Your task to perform on an android device: turn on location history Image 0: 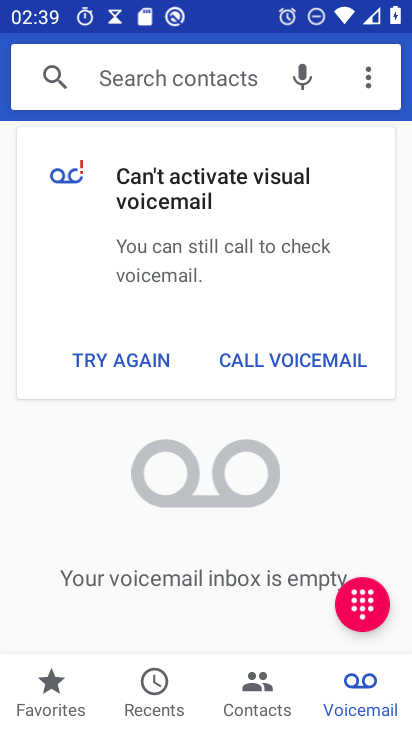
Step 0: press home button
Your task to perform on an android device: turn on location history Image 1: 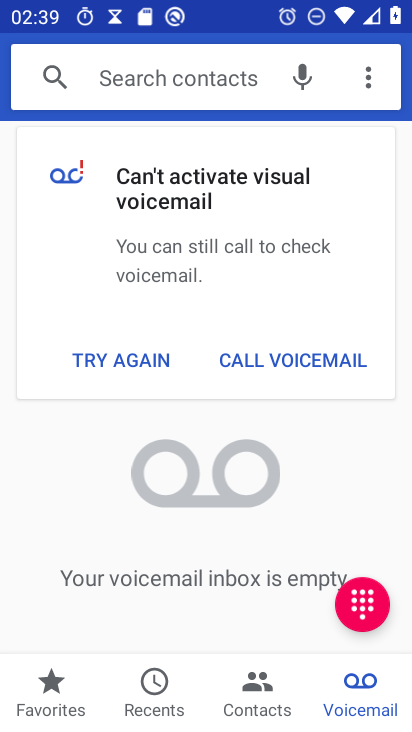
Step 1: click (406, 397)
Your task to perform on an android device: turn on location history Image 2: 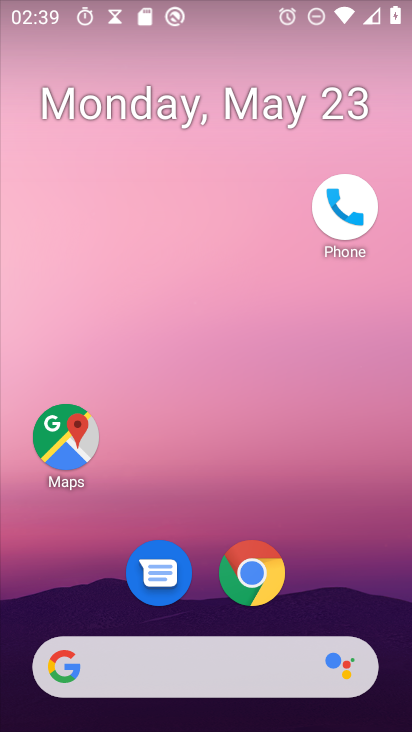
Step 2: click (58, 450)
Your task to perform on an android device: turn on location history Image 3: 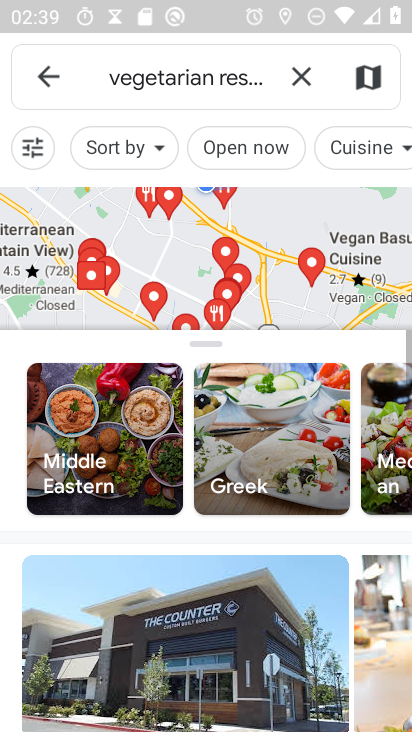
Step 3: click (50, 69)
Your task to perform on an android device: turn on location history Image 4: 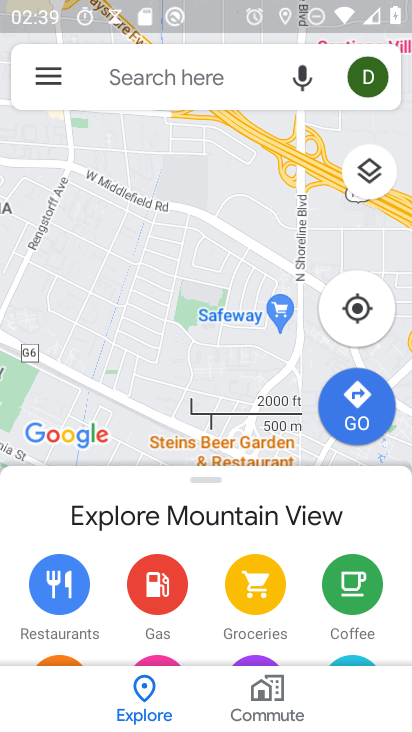
Step 4: click (42, 75)
Your task to perform on an android device: turn on location history Image 5: 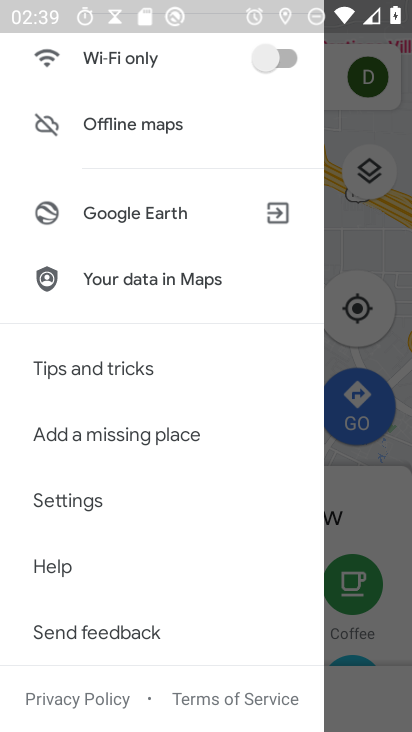
Step 5: drag from (214, 99) to (152, 609)
Your task to perform on an android device: turn on location history Image 6: 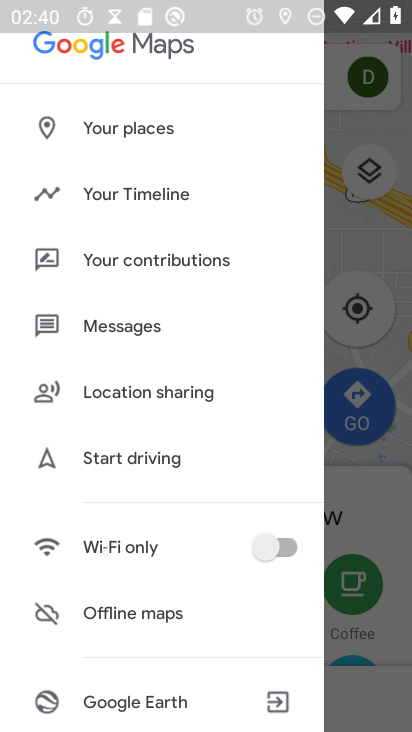
Step 6: click (159, 199)
Your task to perform on an android device: turn on location history Image 7: 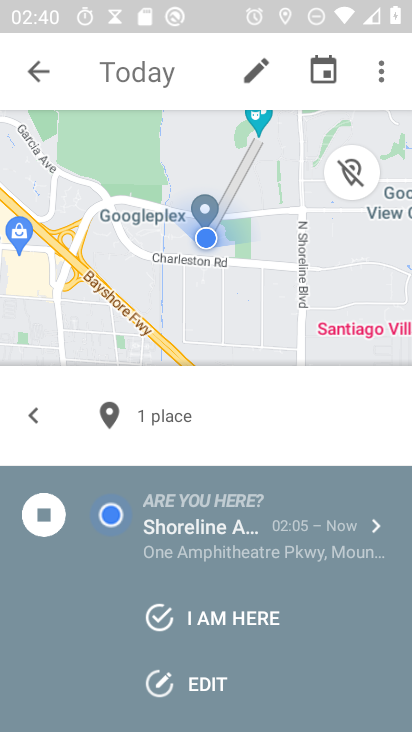
Step 7: click (385, 74)
Your task to perform on an android device: turn on location history Image 8: 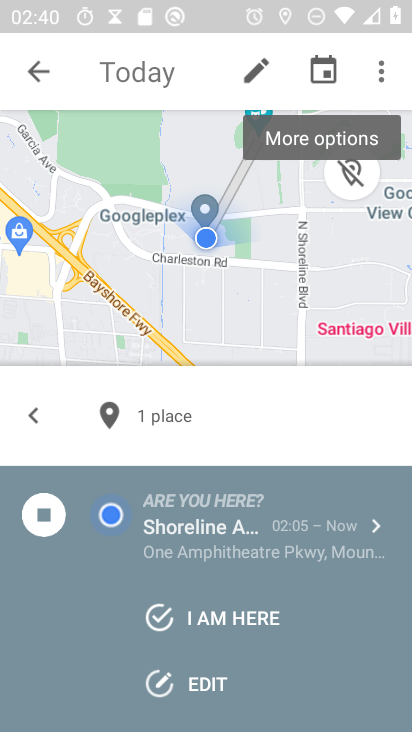
Step 8: click (385, 75)
Your task to perform on an android device: turn on location history Image 9: 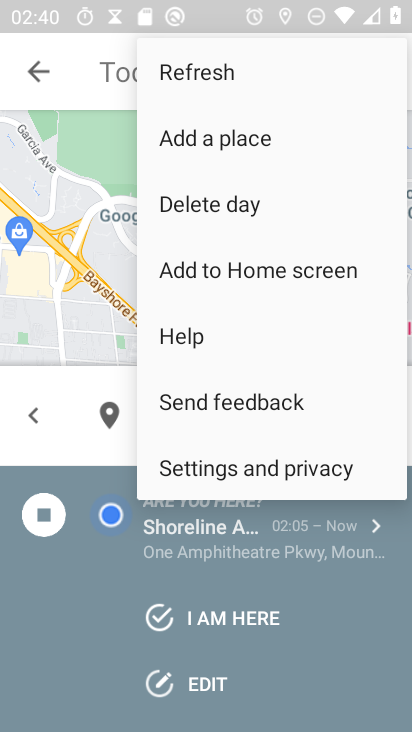
Step 9: click (259, 464)
Your task to perform on an android device: turn on location history Image 10: 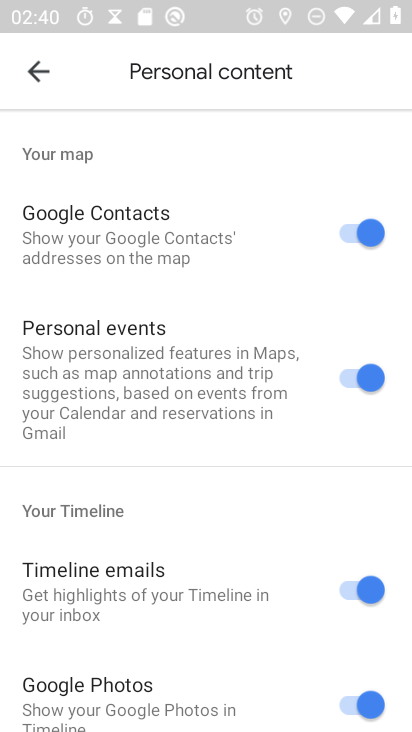
Step 10: drag from (253, 615) to (347, 78)
Your task to perform on an android device: turn on location history Image 11: 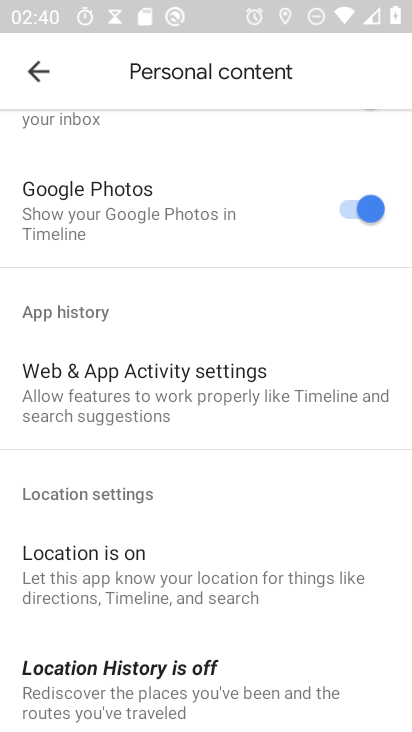
Step 11: drag from (226, 617) to (295, 212)
Your task to perform on an android device: turn on location history Image 12: 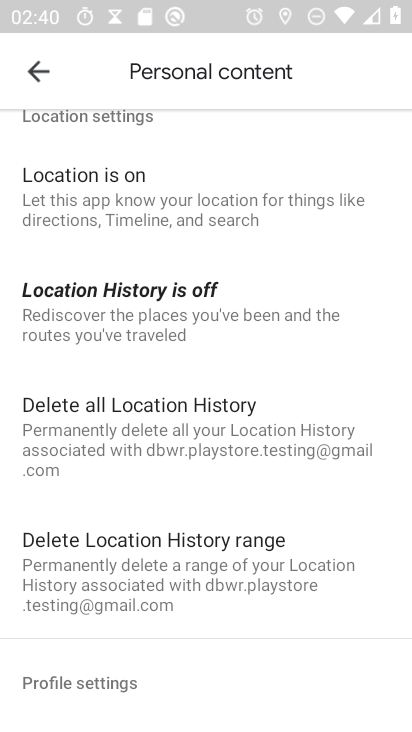
Step 12: click (177, 301)
Your task to perform on an android device: turn on location history Image 13: 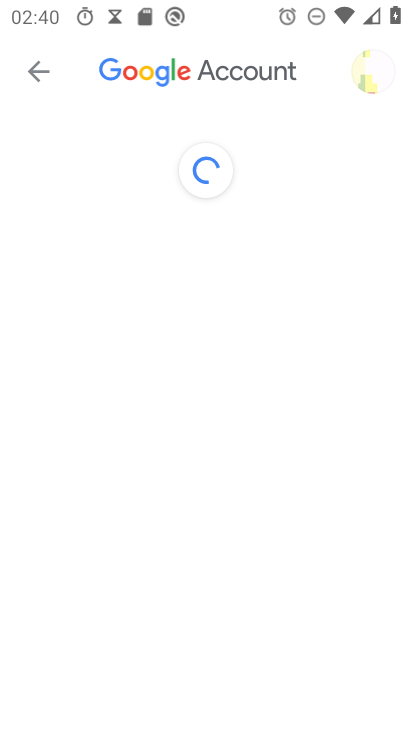
Step 13: click (258, 577)
Your task to perform on an android device: turn on location history Image 14: 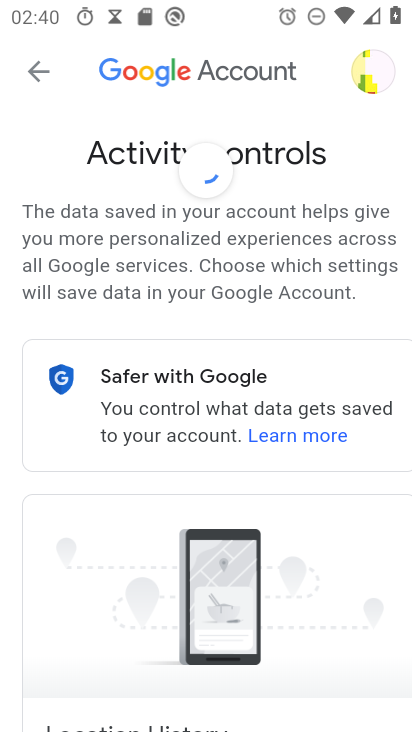
Step 14: drag from (283, 617) to (360, 133)
Your task to perform on an android device: turn on location history Image 15: 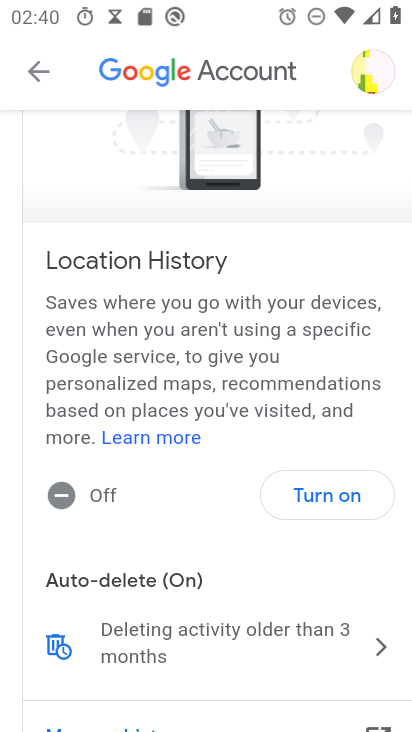
Step 15: click (332, 501)
Your task to perform on an android device: turn on location history Image 16: 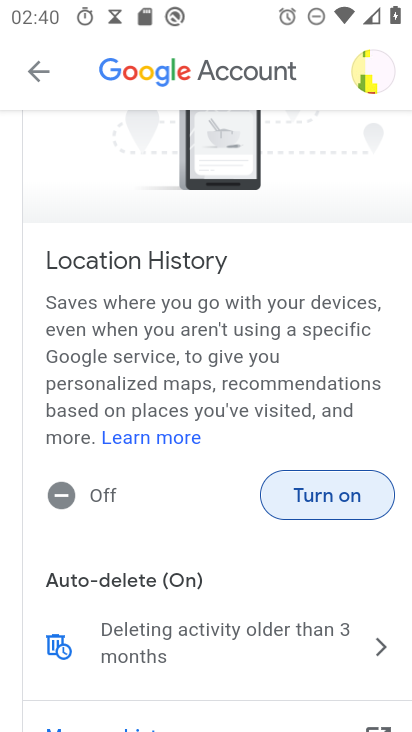
Step 16: click (327, 494)
Your task to perform on an android device: turn on location history Image 17: 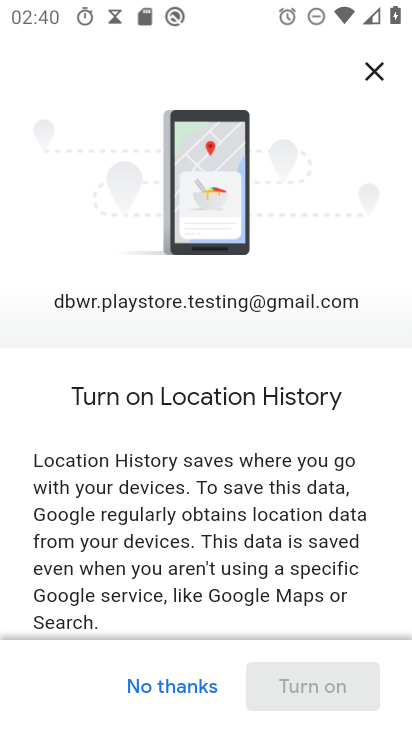
Step 17: drag from (259, 608) to (349, 61)
Your task to perform on an android device: turn on location history Image 18: 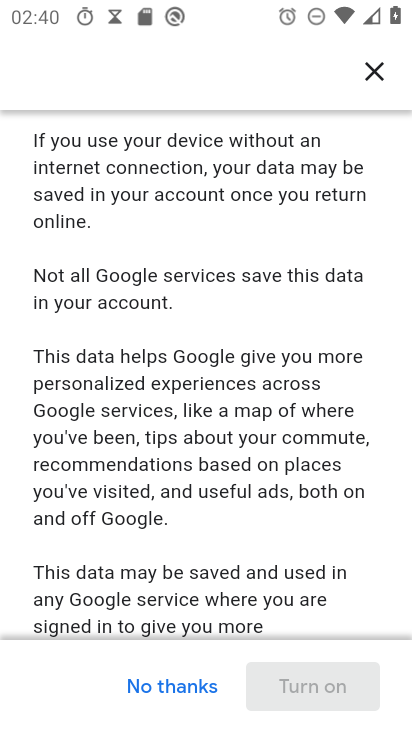
Step 18: drag from (287, 596) to (318, 78)
Your task to perform on an android device: turn on location history Image 19: 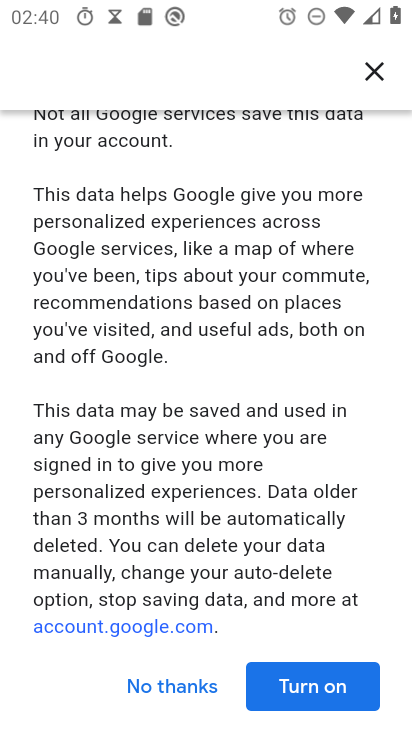
Step 19: click (310, 692)
Your task to perform on an android device: turn on location history Image 20: 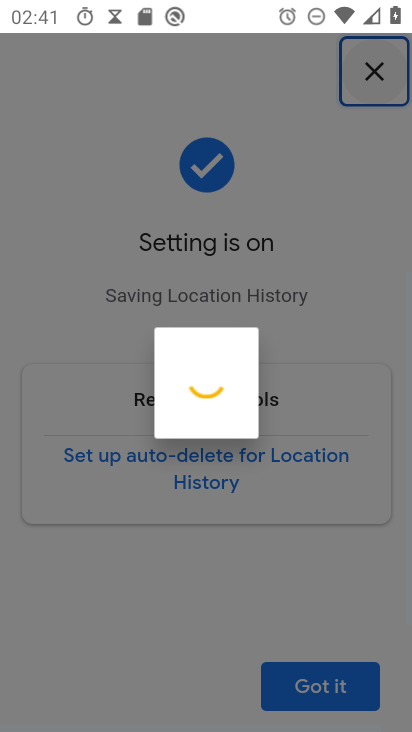
Step 20: click (314, 687)
Your task to perform on an android device: turn on location history Image 21: 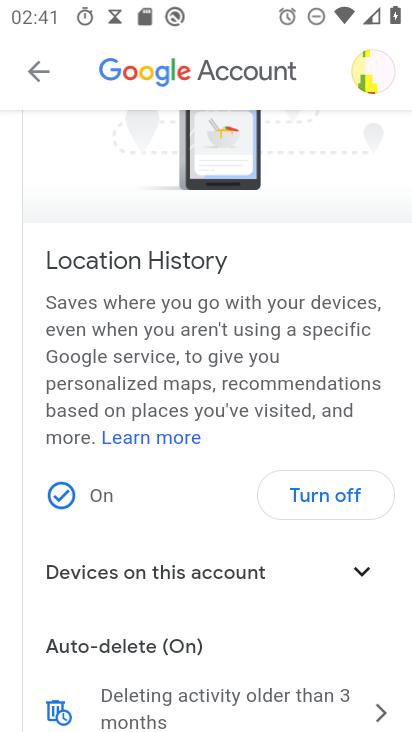
Step 21: click (325, 683)
Your task to perform on an android device: turn on location history Image 22: 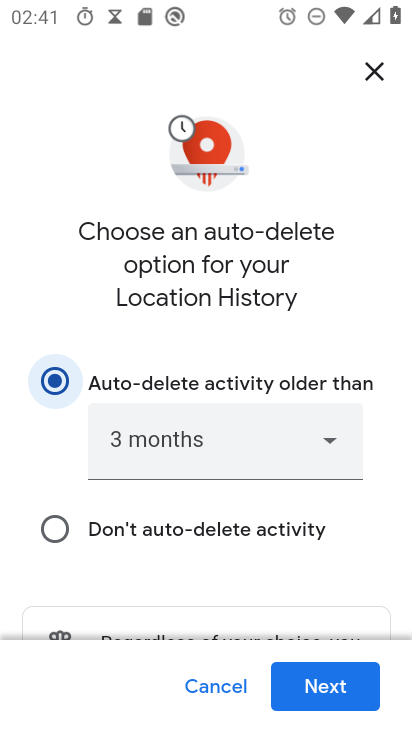
Step 22: click (371, 67)
Your task to perform on an android device: turn on location history Image 23: 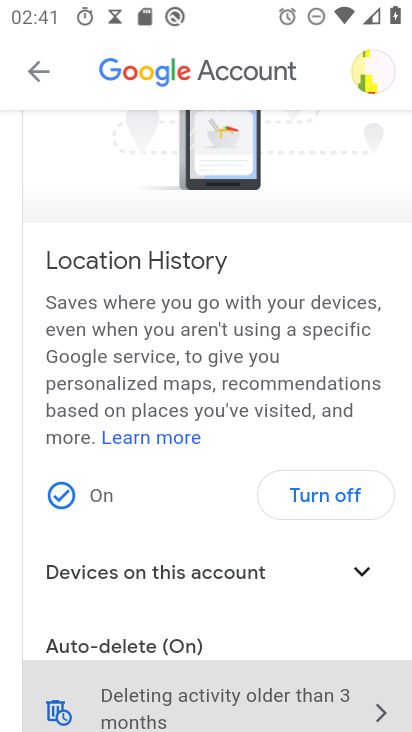
Step 23: task complete